Your task to perform on an android device: Open ESPN.com Image 0: 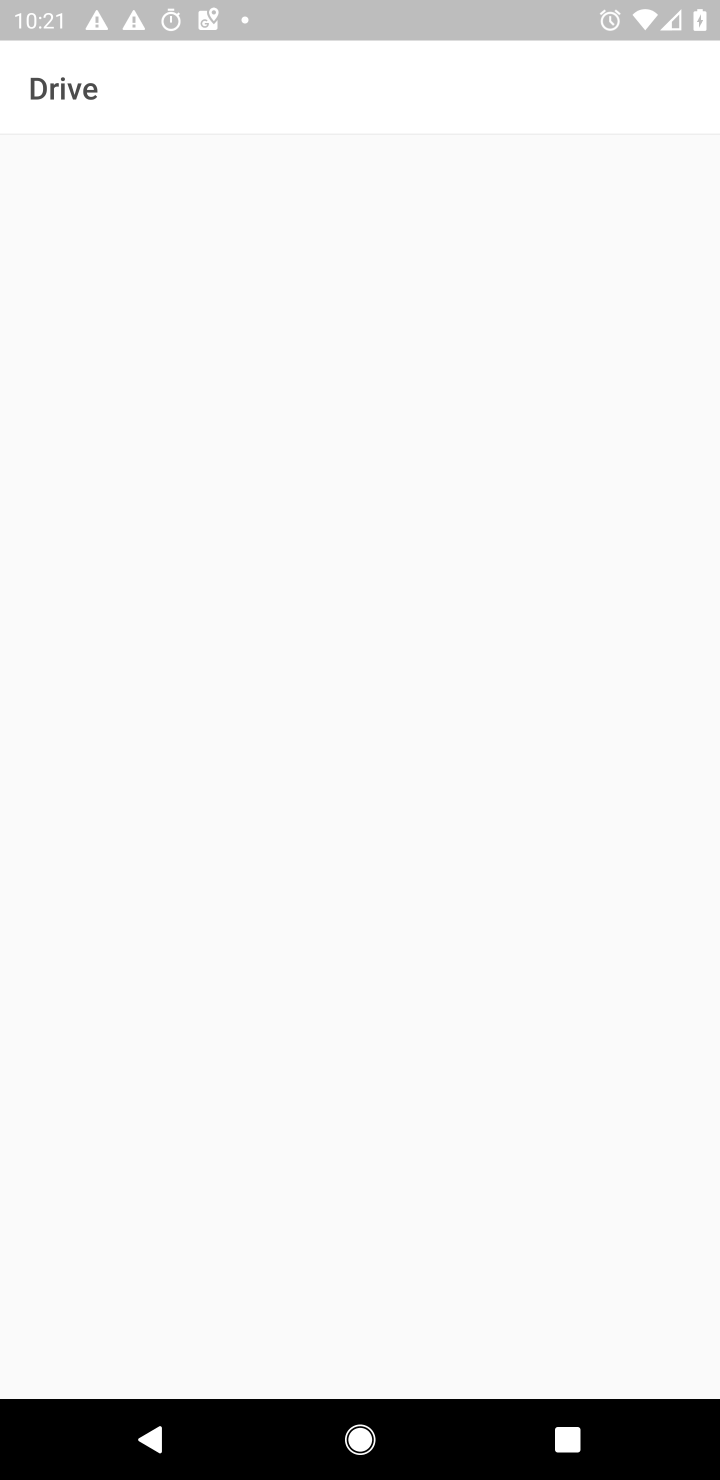
Step 0: press back button
Your task to perform on an android device: Open ESPN.com Image 1: 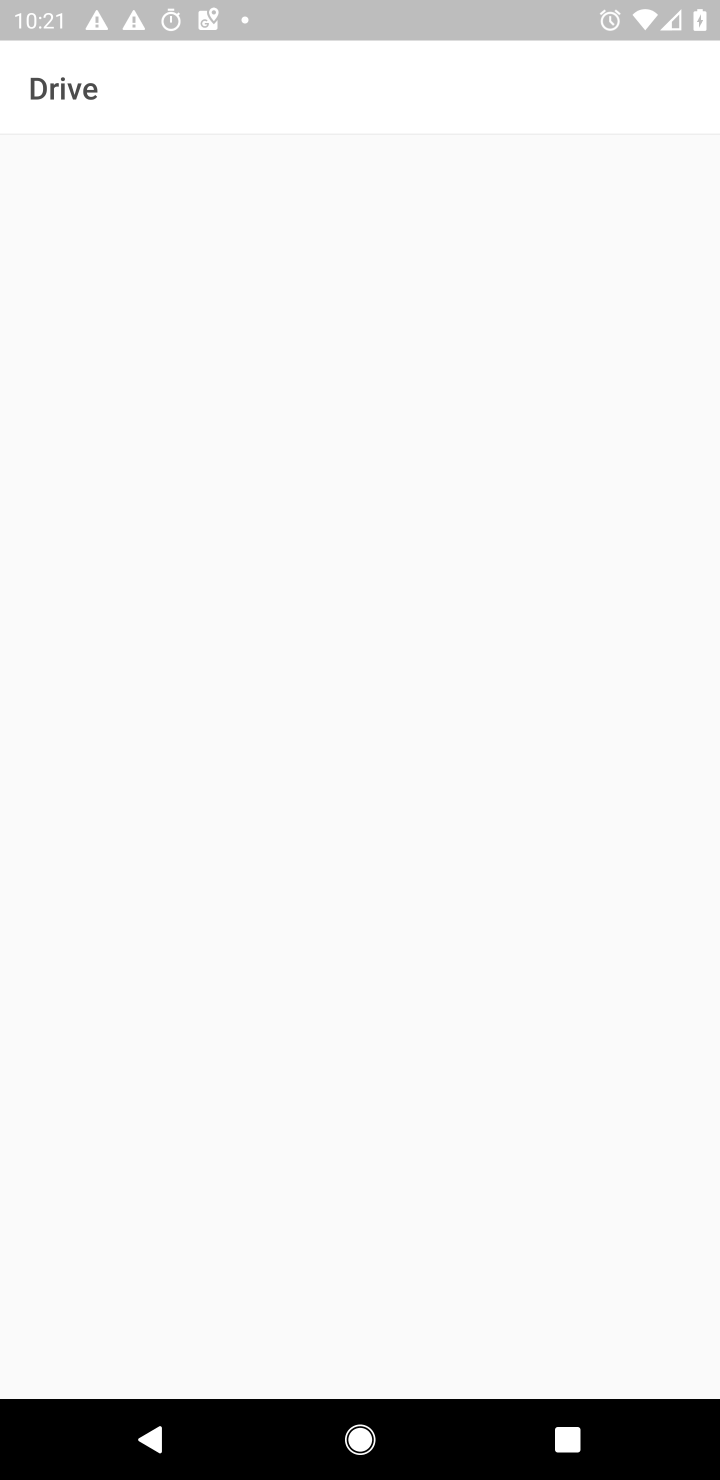
Step 1: press back button
Your task to perform on an android device: Open ESPN.com Image 2: 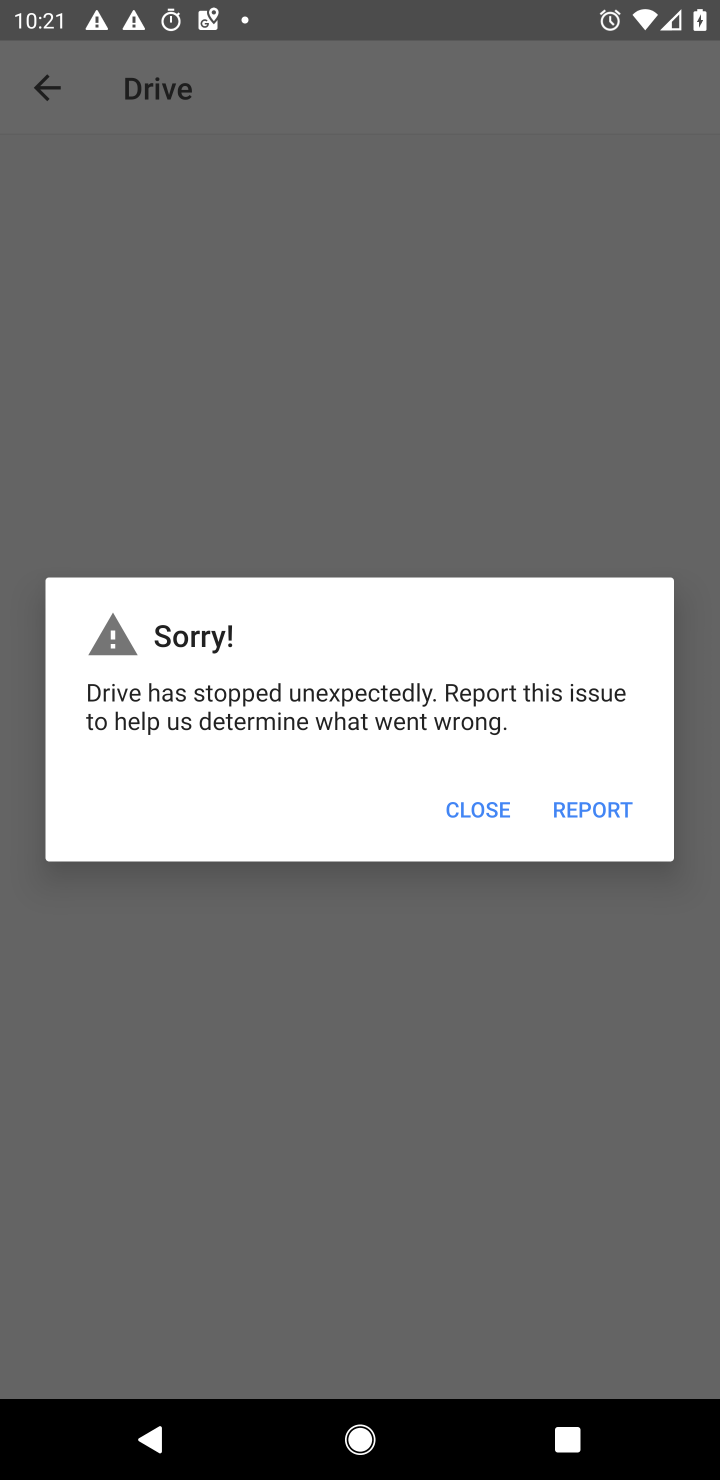
Step 2: press home button
Your task to perform on an android device: Open ESPN.com Image 3: 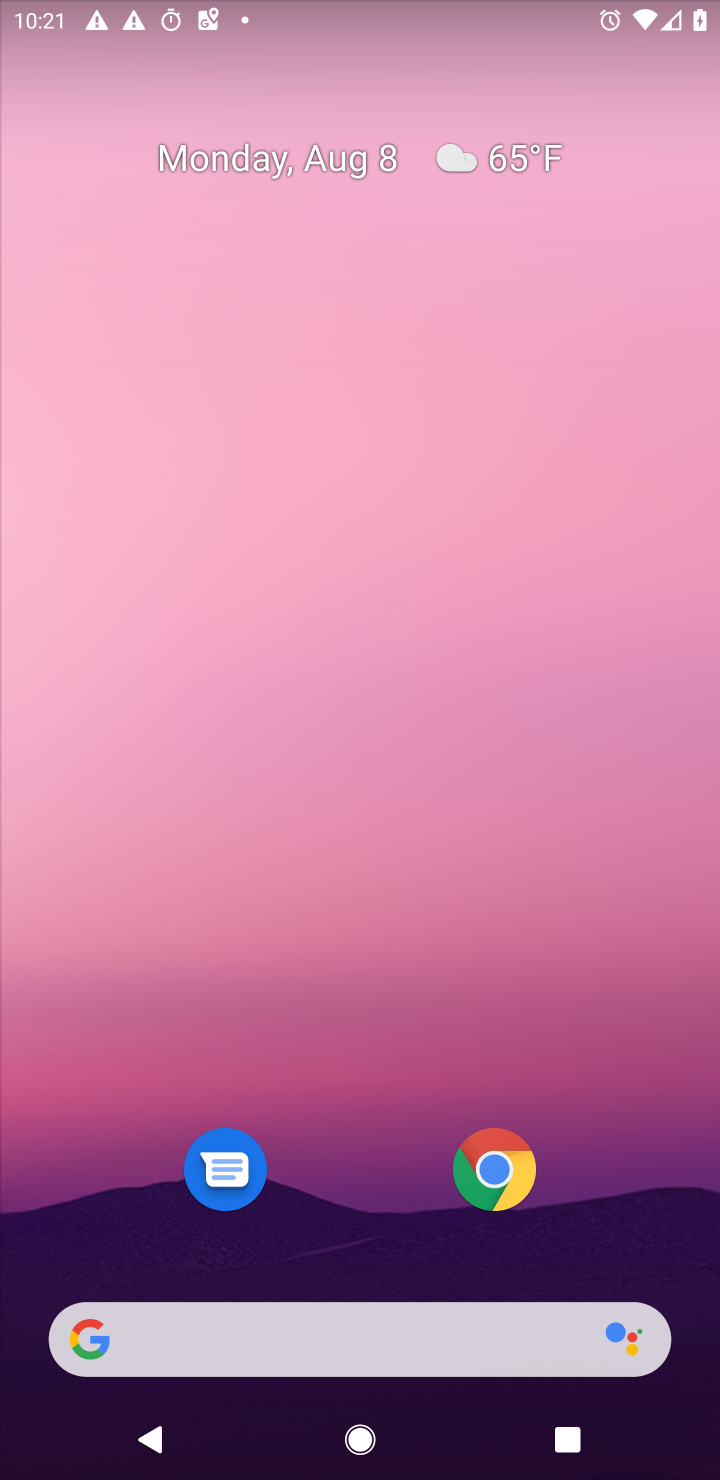
Step 3: click (479, 1171)
Your task to perform on an android device: Open ESPN.com Image 4: 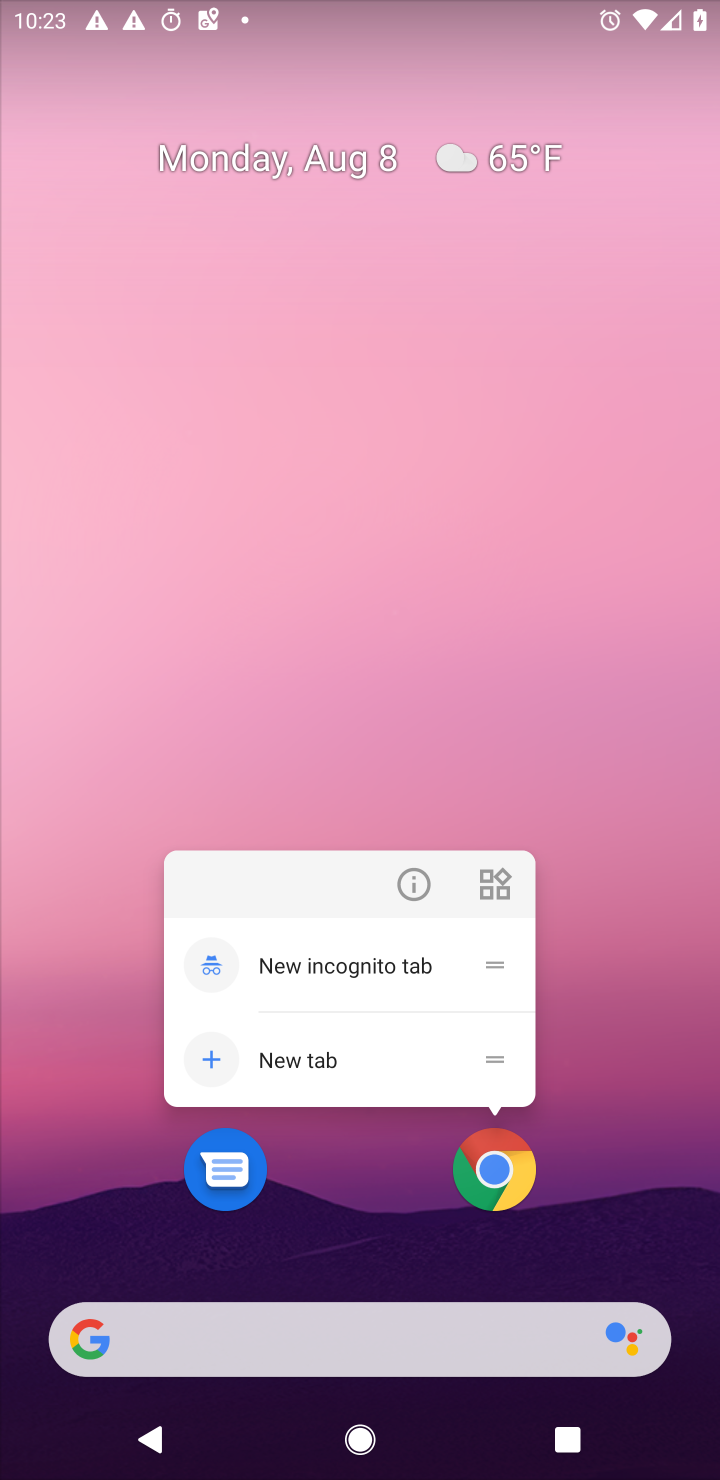
Step 4: click (492, 1166)
Your task to perform on an android device: Open ESPN.com Image 5: 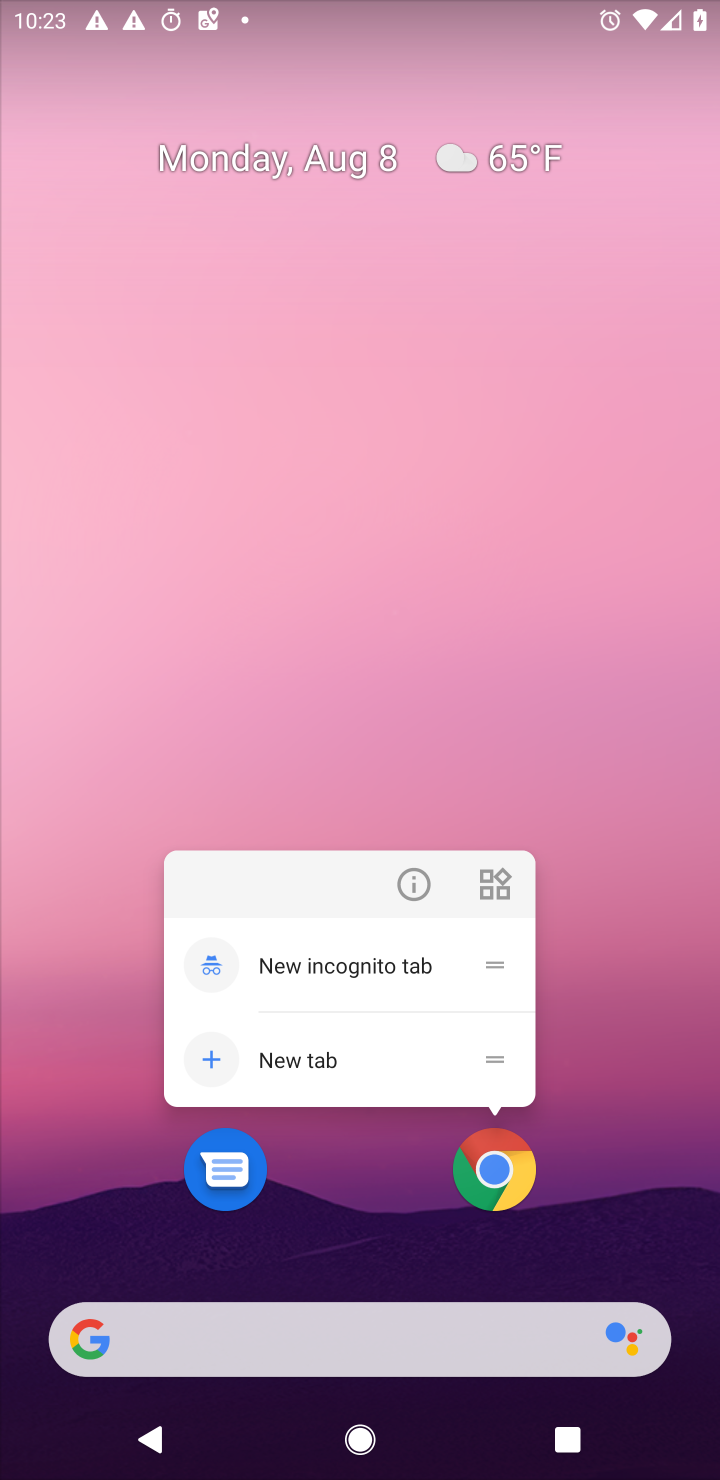
Step 5: click (492, 1177)
Your task to perform on an android device: Open ESPN.com Image 6: 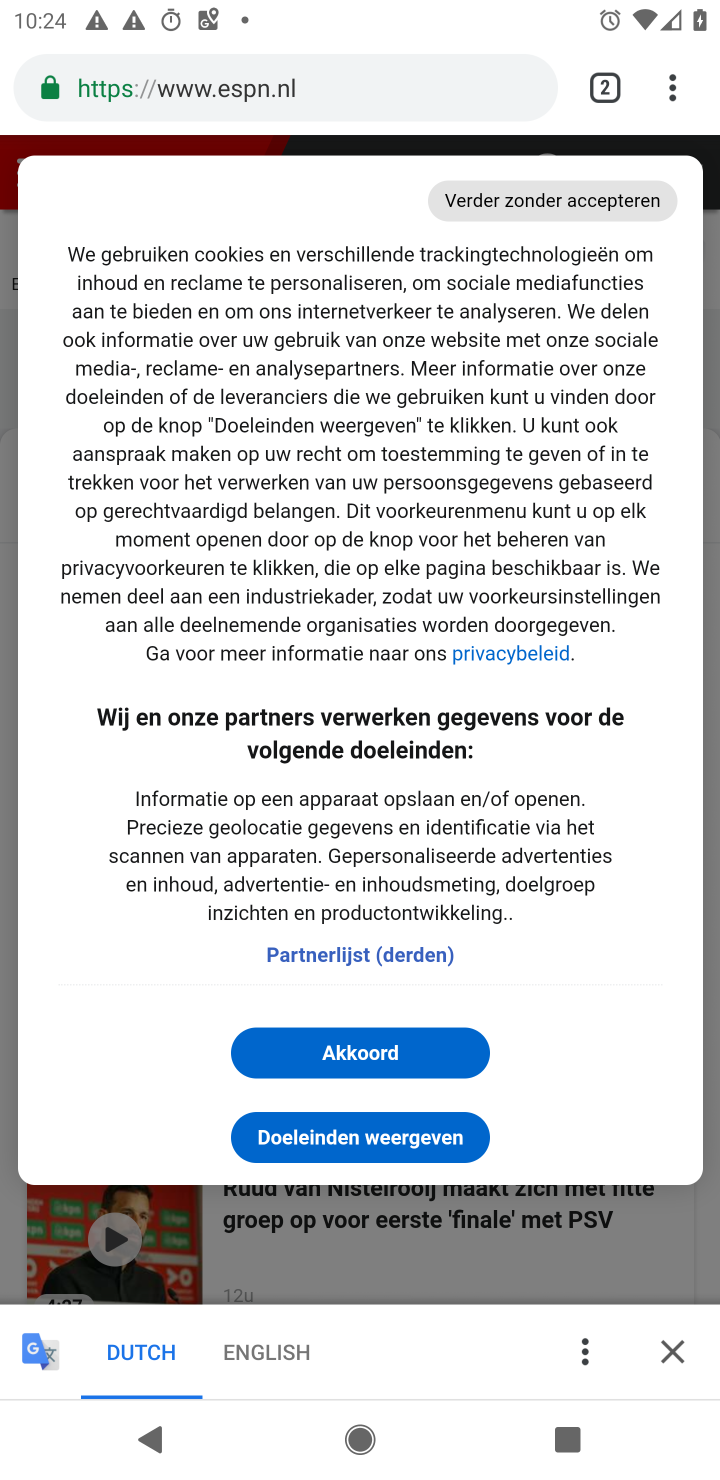
Step 6: task complete